Your task to perform on an android device: turn notification dots on Image 0: 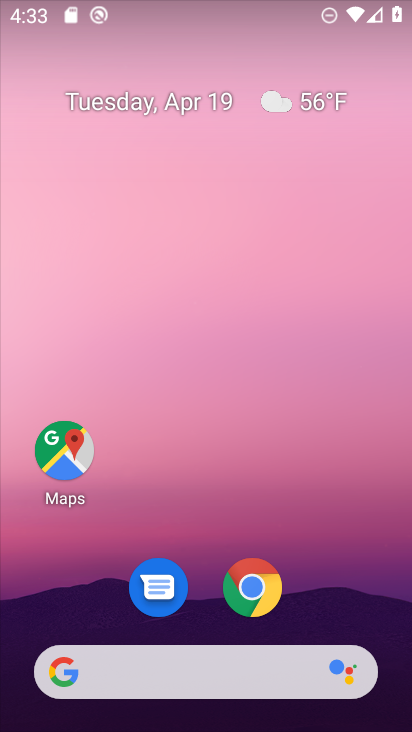
Step 0: drag from (215, 711) to (215, 23)
Your task to perform on an android device: turn notification dots on Image 1: 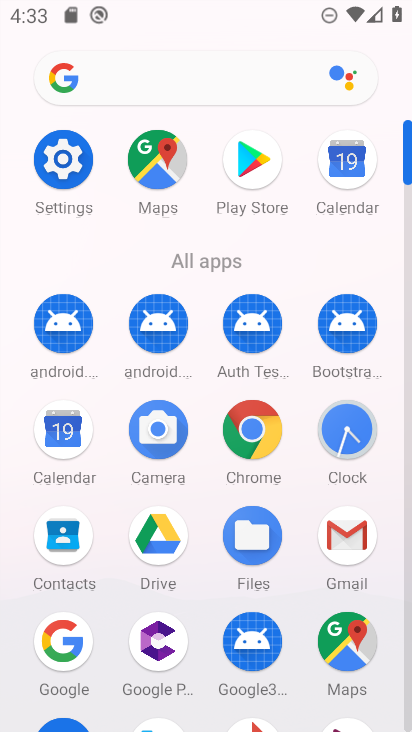
Step 1: click (63, 160)
Your task to perform on an android device: turn notification dots on Image 2: 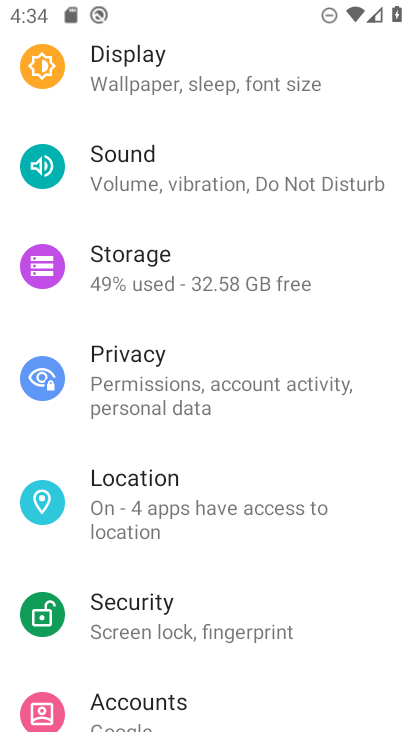
Step 2: drag from (213, 146) to (196, 576)
Your task to perform on an android device: turn notification dots on Image 3: 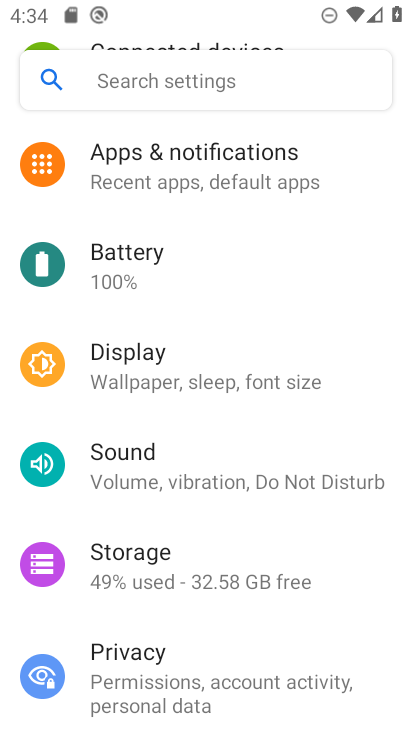
Step 3: click (169, 170)
Your task to perform on an android device: turn notification dots on Image 4: 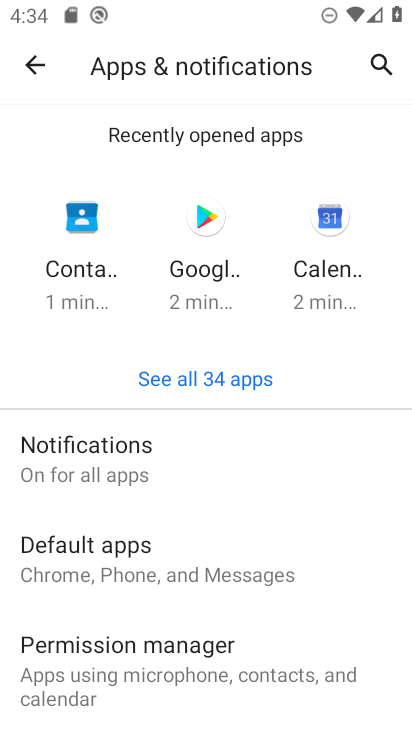
Step 4: click (99, 461)
Your task to perform on an android device: turn notification dots on Image 5: 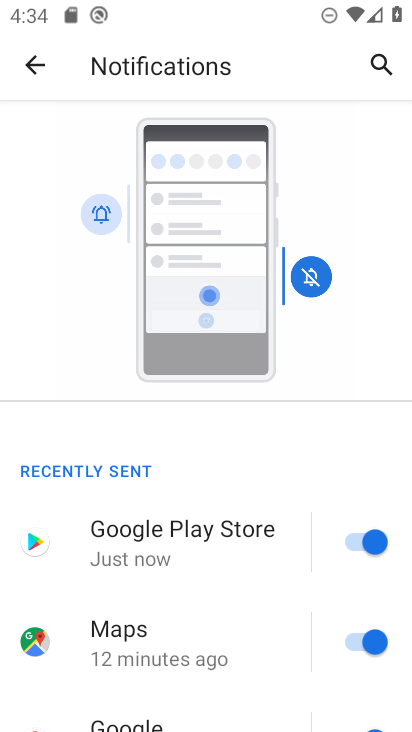
Step 5: drag from (238, 696) to (237, 138)
Your task to perform on an android device: turn notification dots on Image 6: 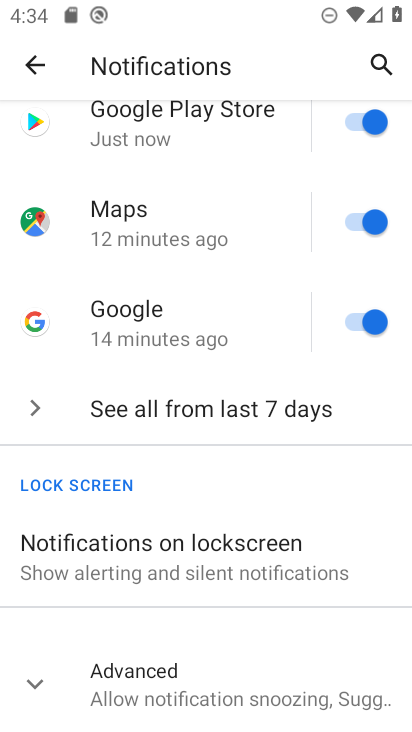
Step 6: click (149, 689)
Your task to perform on an android device: turn notification dots on Image 7: 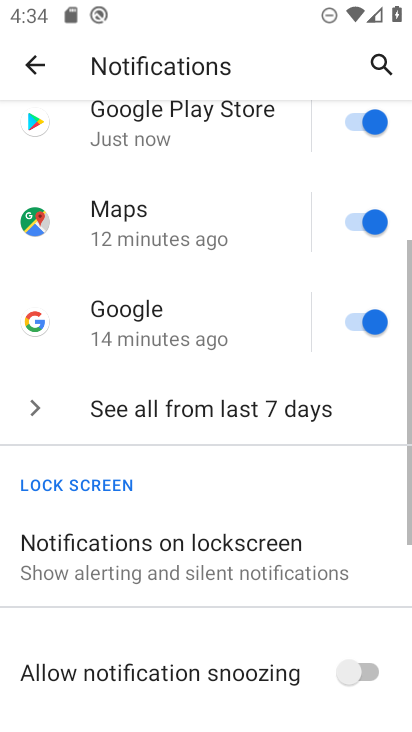
Step 7: task complete